Your task to perform on an android device: refresh tabs in the chrome app Image 0: 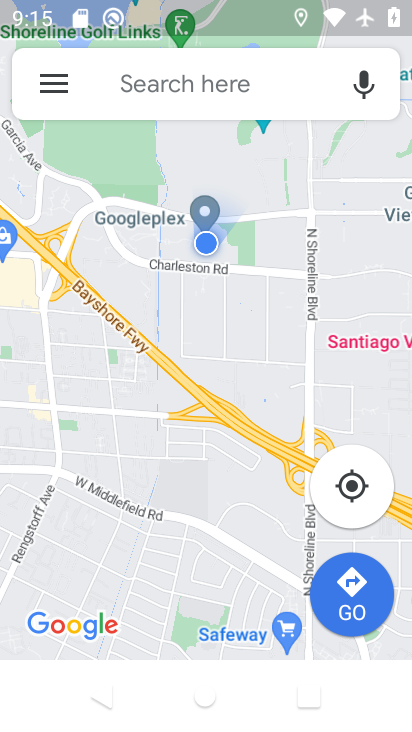
Step 0: press home button
Your task to perform on an android device: refresh tabs in the chrome app Image 1: 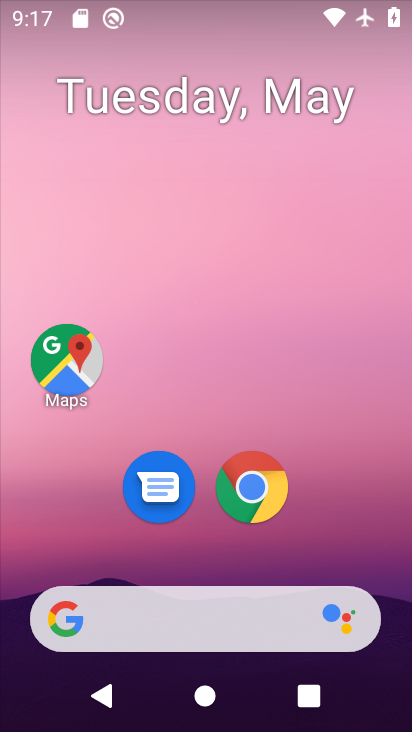
Step 1: click (270, 495)
Your task to perform on an android device: refresh tabs in the chrome app Image 2: 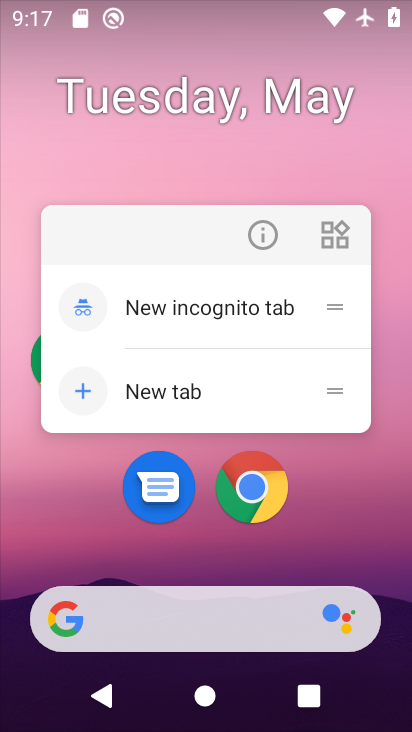
Step 2: click (244, 494)
Your task to perform on an android device: refresh tabs in the chrome app Image 3: 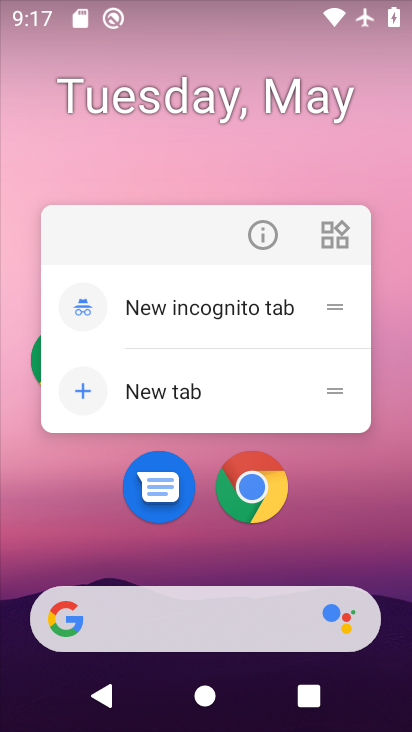
Step 3: click (244, 493)
Your task to perform on an android device: refresh tabs in the chrome app Image 4: 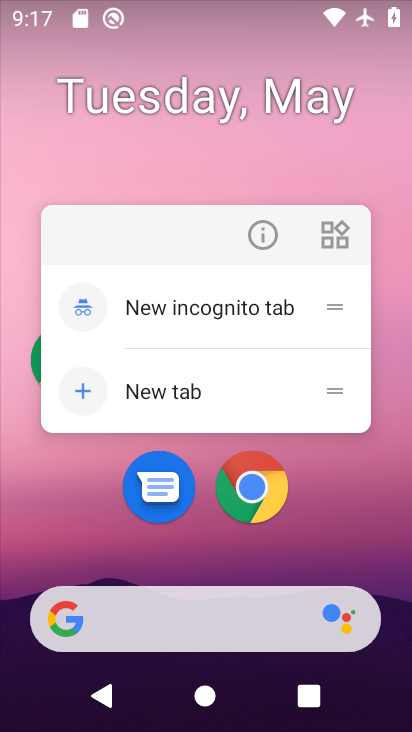
Step 4: click (254, 501)
Your task to perform on an android device: refresh tabs in the chrome app Image 5: 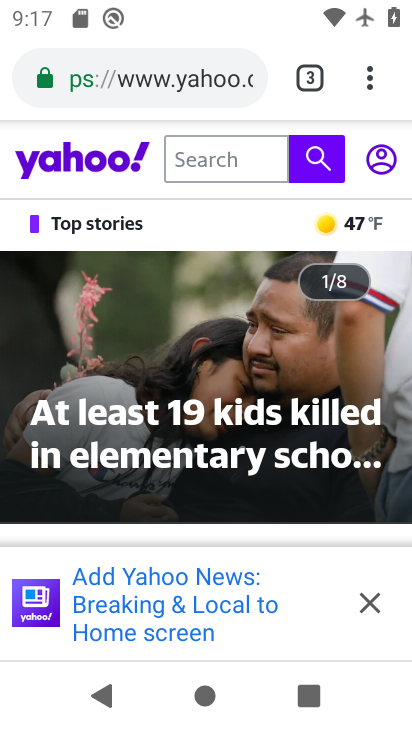
Step 5: click (368, 96)
Your task to perform on an android device: refresh tabs in the chrome app Image 6: 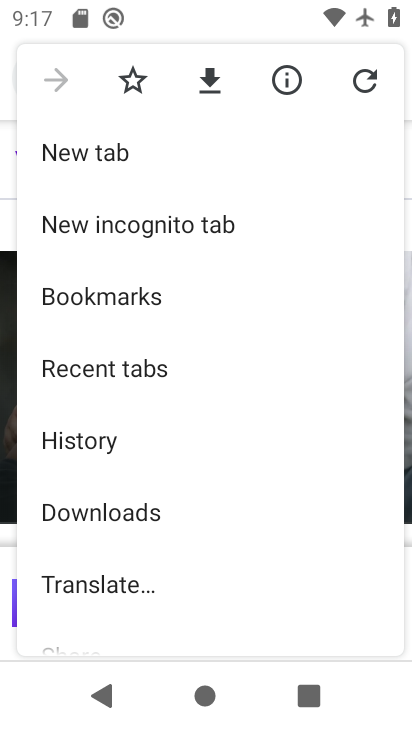
Step 6: click (356, 84)
Your task to perform on an android device: refresh tabs in the chrome app Image 7: 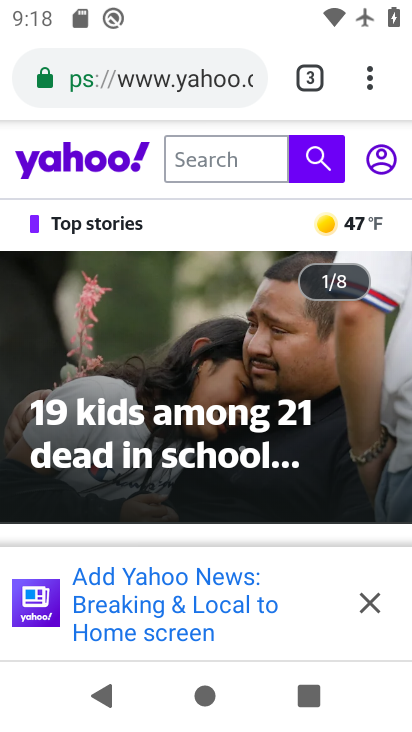
Step 7: task complete